Your task to perform on an android device: turn on bluetooth scan Image 0: 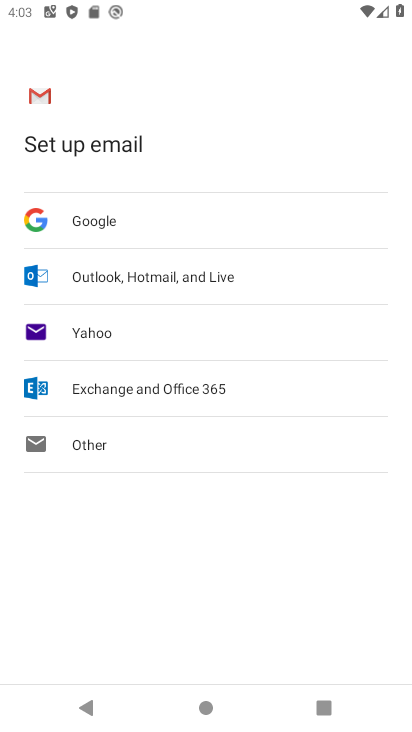
Step 0: press home button
Your task to perform on an android device: turn on bluetooth scan Image 1: 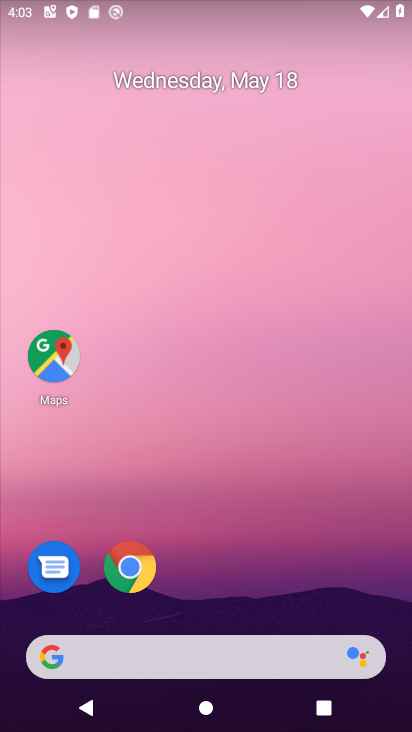
Step 1: drag from (213, 610) to (224, 575)
Your task to perform on an android device: turn on bluetooth scan Image 2: 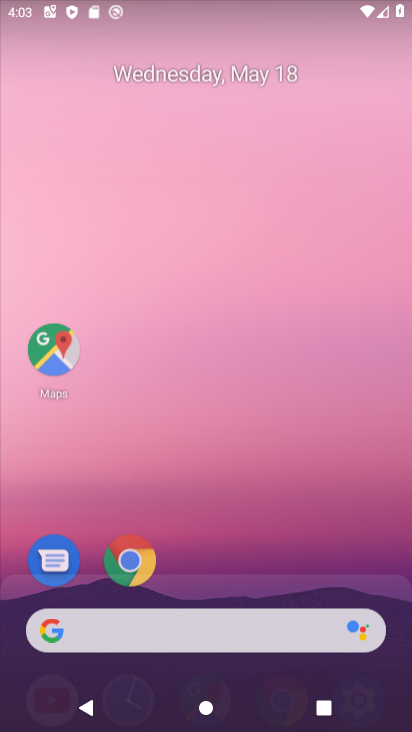
Step 2: click (265, 272)
Your task to perform on an android device: turn on bluetooth scan Image 3: 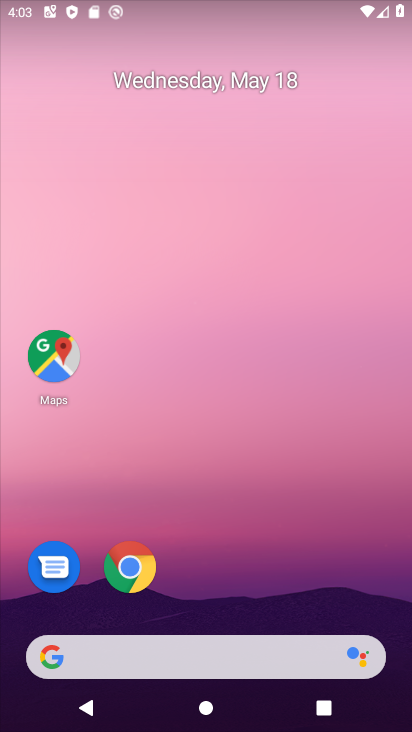
Step 3: drag from (200, 598) to (237, 130)
Your task to perform on an android device: turn on bluetooth scan Image 4: 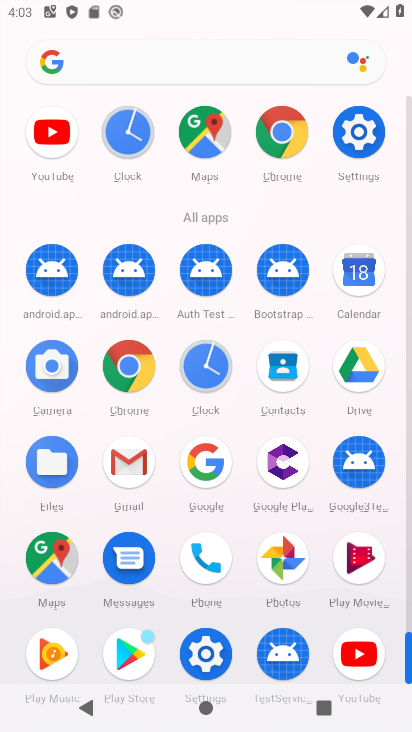
Step 4: click (358, 134)
Your task to perform on an android device: turn on bluetooth scan Image 5: 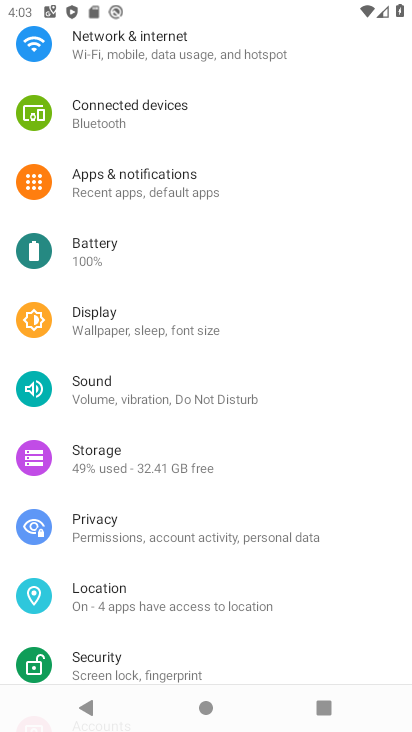
Step 5: click (105, 590)
Your task to perform on an android device: turn on bluetooth scan Image 6: 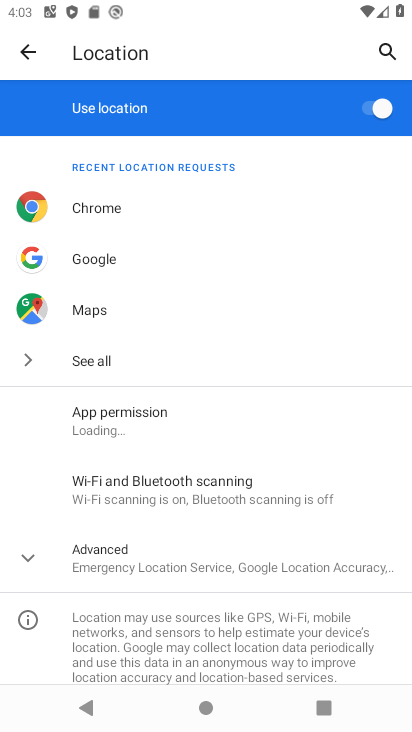
Step 6: click (172, 480)
Your task to perform on an android device: turn on bluetooth scan Image 7: 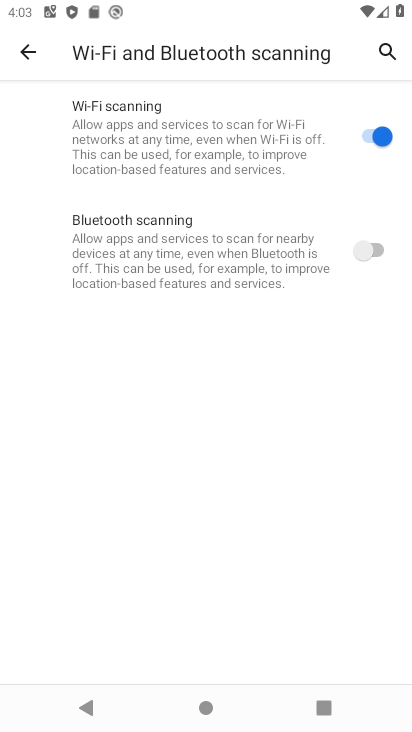
Step 7: click (364, 248)
Your task to perform on an android device: turn on bluetooth scan Image 8: 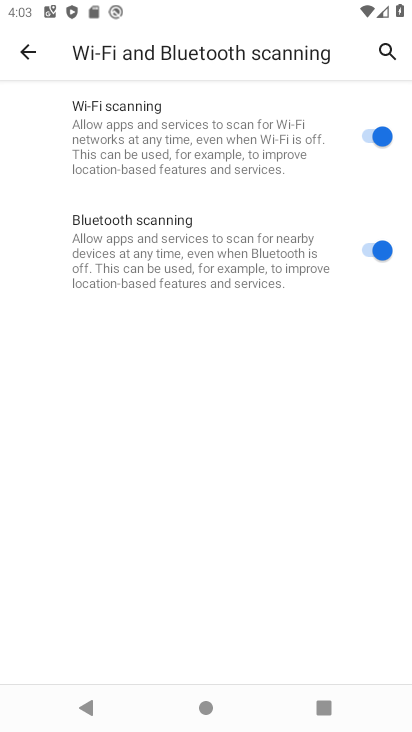
Step 8: task complete